Your task to perform on an android device: toggle translation in the chrome app Image 0: 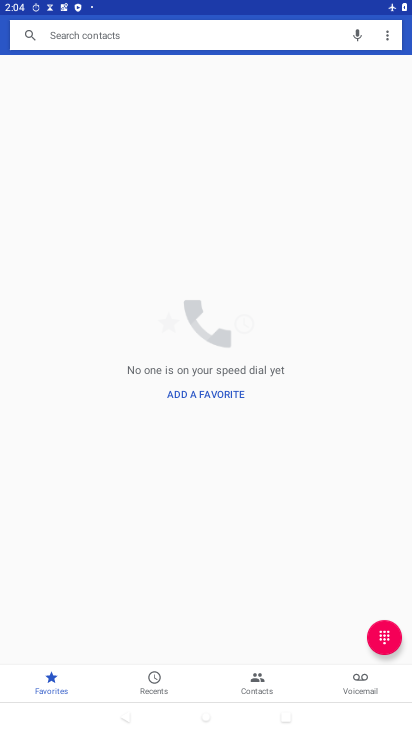
Step 0: press home button
Your task to perform on an android device: toggle translation in the chrome app Image 1: 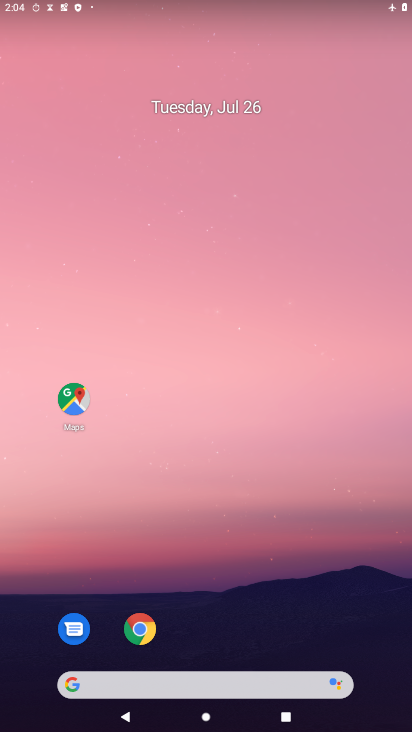
Step 1: drag from (234, 653) to (125, 319)
Your task to perform on an android device: toggle translation in the chrome app Image 2: 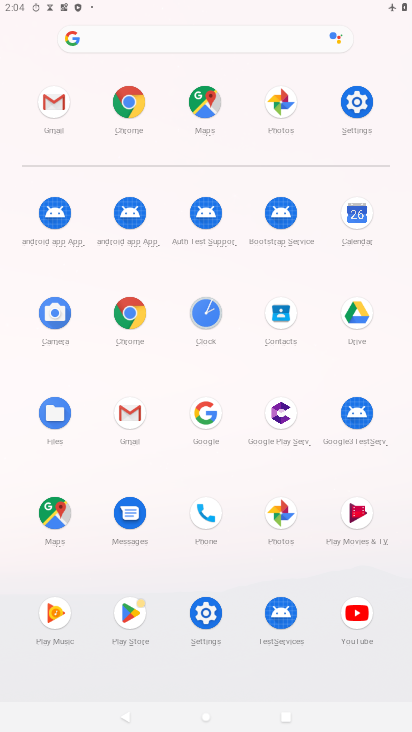
Step 2: click (124, 314)
Your task to perform on an android device: toggle translation in the chrome app Image 3: 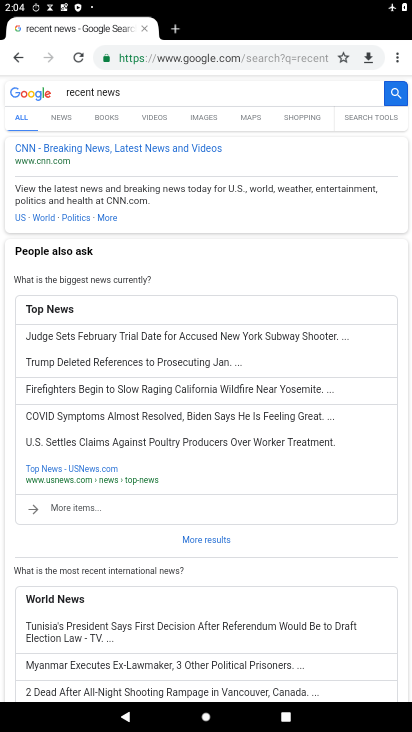
Step 3: drag from (393, 54) to (297, 353)
Your task to perform on an android device: toggle translation in the chrome app Image 4: 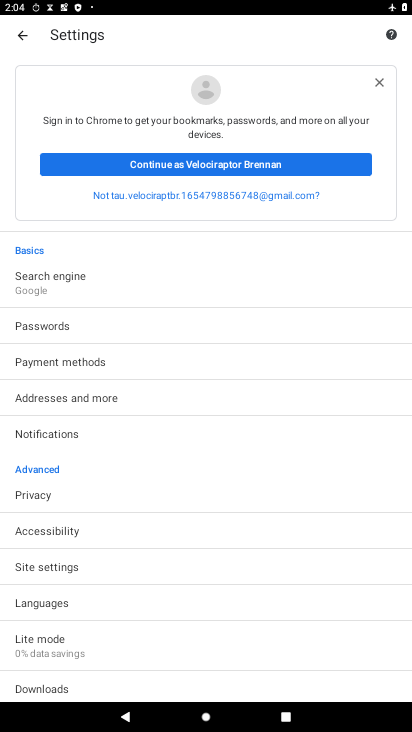
Step 4: click (81, 594)
Your task to perform on an android device: toggle translation in the chrome app Image 5: 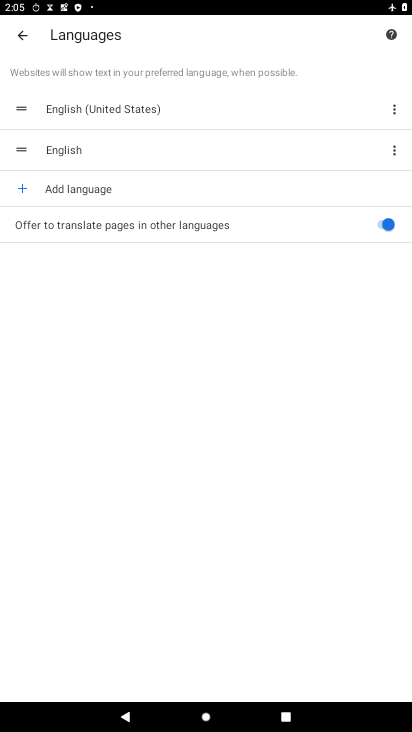
Step 5: click (391, 224)
Your task to perform on an android device: toggle translation in the chrome app Image 6: 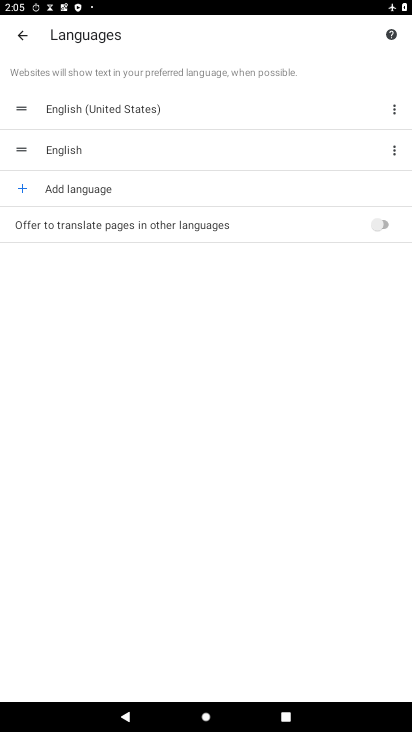
Step 6: task complete